Your task to perform on an android device: turn pop-ups off in chrome Image 0: 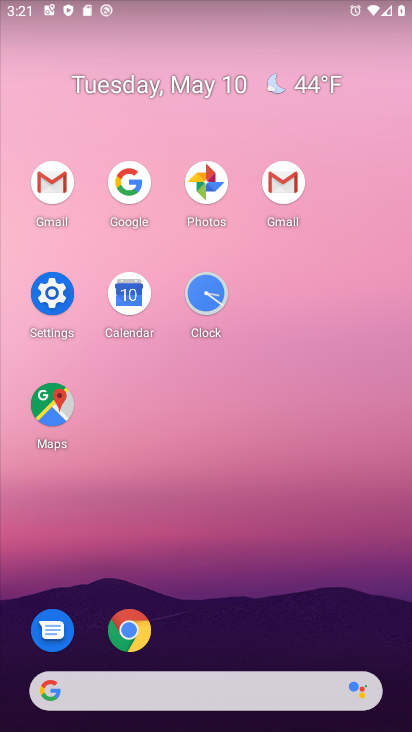
Step 0: click (134, 637)
Your task to perform on an android device: turn pop-ups off in chrome Image 1: 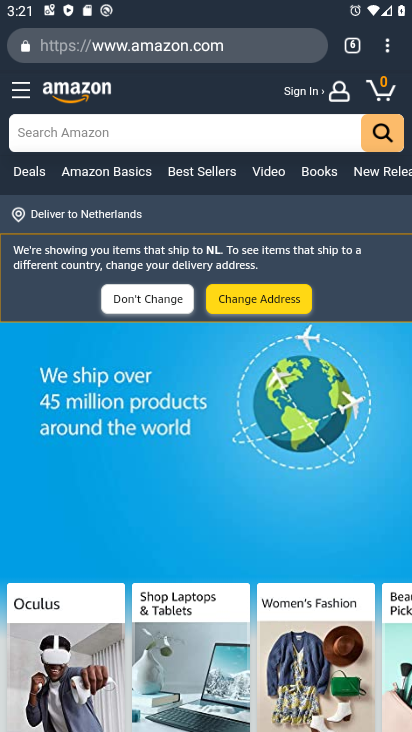
Step 1: click (387, 48)
Your task to perform on an android device: turn pop-ups off in chrome Image 2: 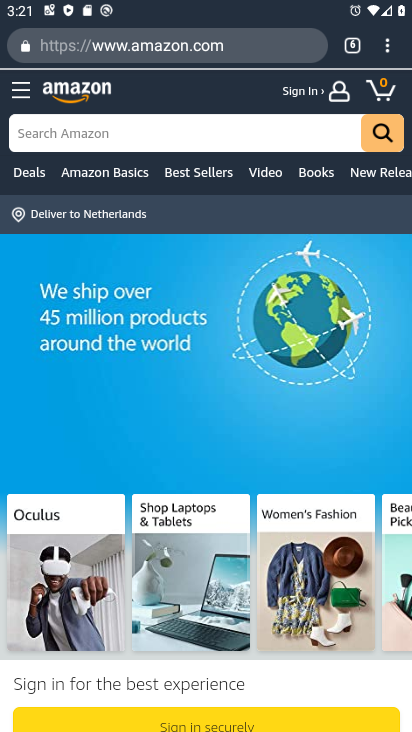
Step 2: click (378, 49)
Your task to perform on an android device: turn pop-ups off in chrome Image 3: 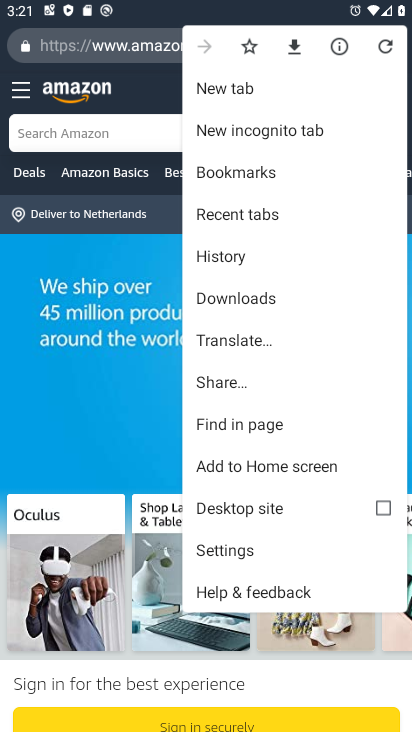
Step 3: drag from (279, 413) to (310, 181)
Your task to perform on an android device: turn pop-ups off in chrome Image 4: 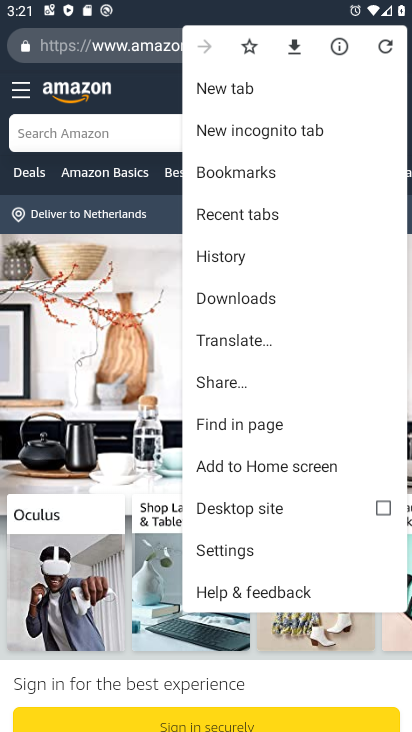
Step 4: click (294, 536)
Your task to perform on an android device: turn pop-ups off in chrome Image 5: 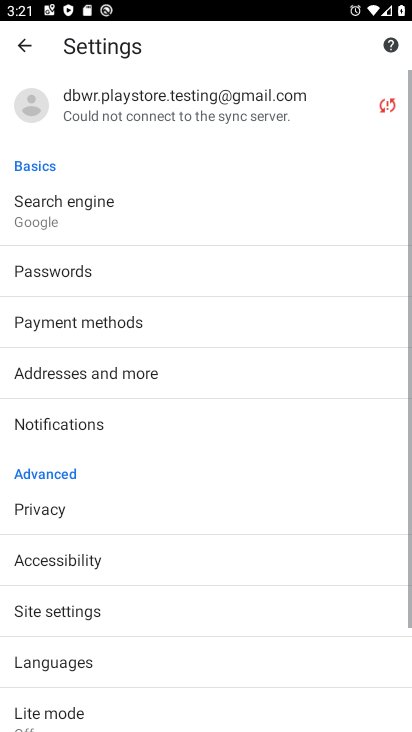
Step 5: drag from (108, 578) to (171, 176)
Your task to perform on an android device: turn pop-ups off in chrome Image 6: 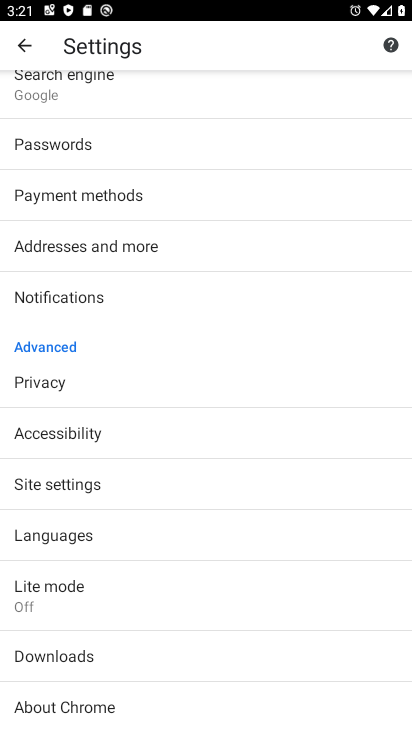
Step 6: click (104, 497)
Your task to perform on an android device: turn pop-ups off in chrome Image 7: 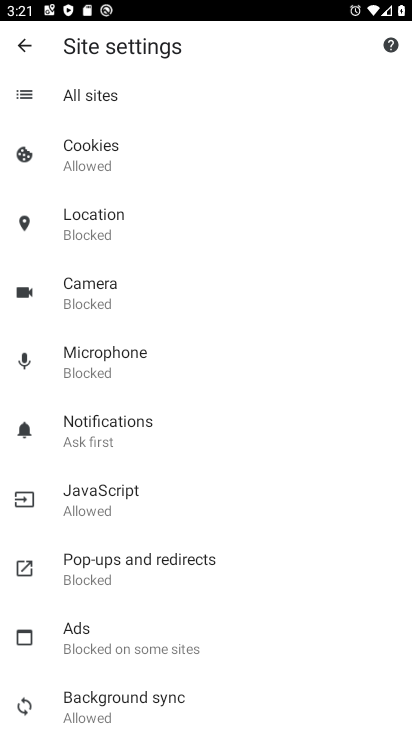
Step 7: click (133, 574)
Your task to perform on an android device: turn pop-ups off in chrome Image 8: 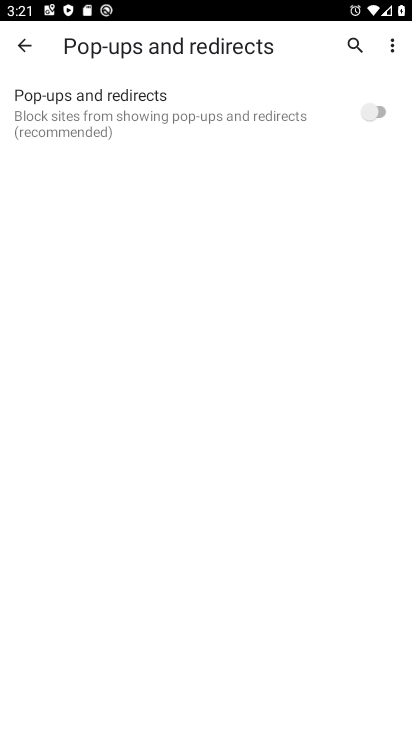
Step 8: click (360, 111)
Your task to perform on an android device: turn pop-ups off in chrome Image 9: 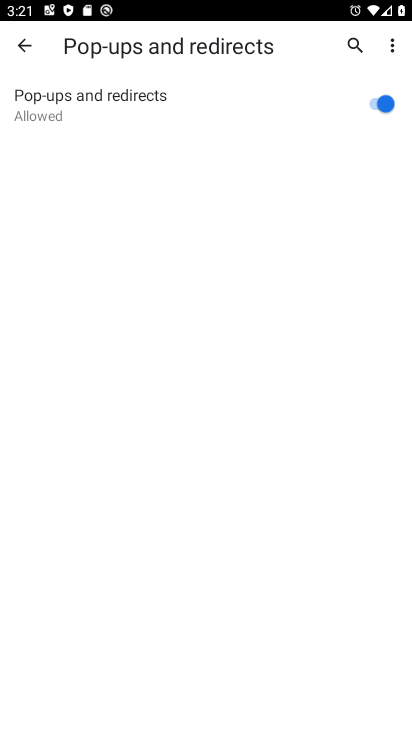
Step 9: task complete